Your task to perform on an android device: turn pop-ups on in chrome Image 0: 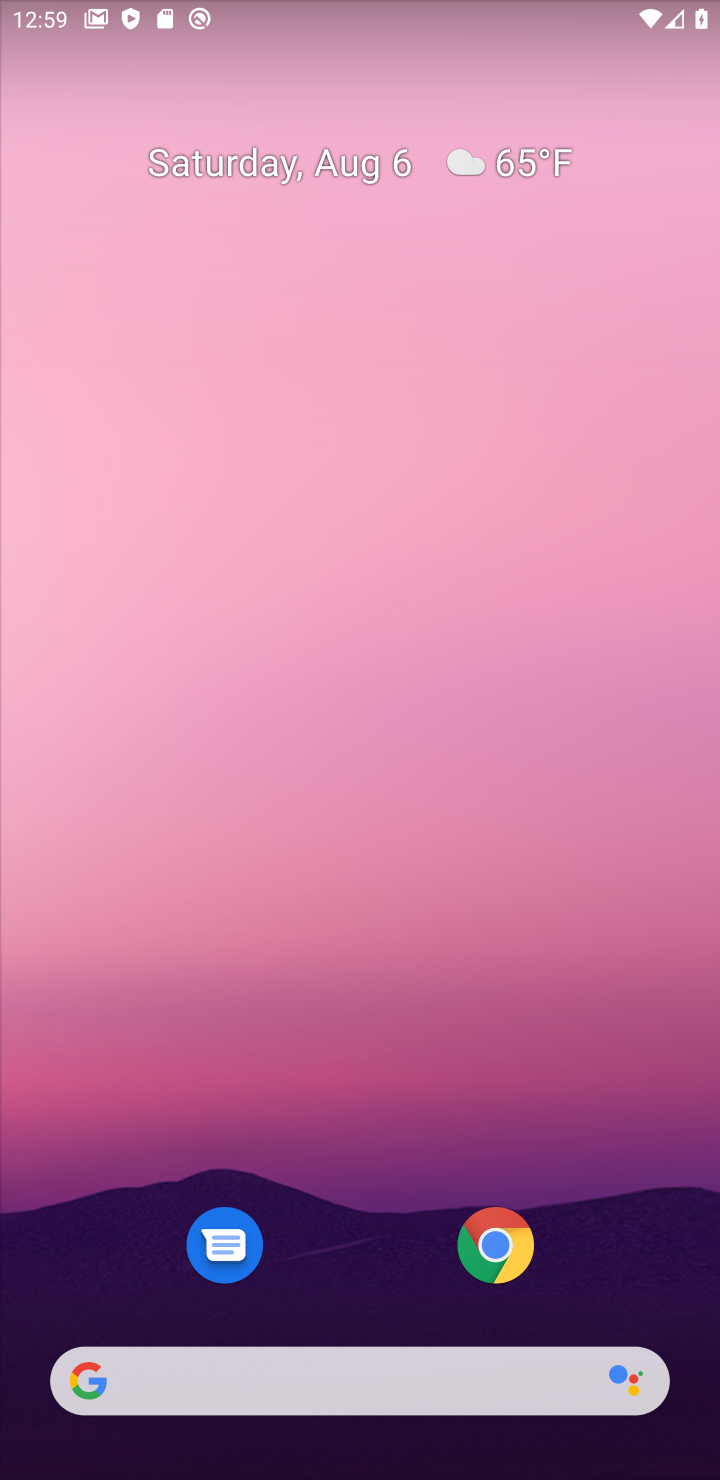
Step 0: click (517, 1245)
Your task to perform on an android device: turn pop-ups on in chrome Image 1: 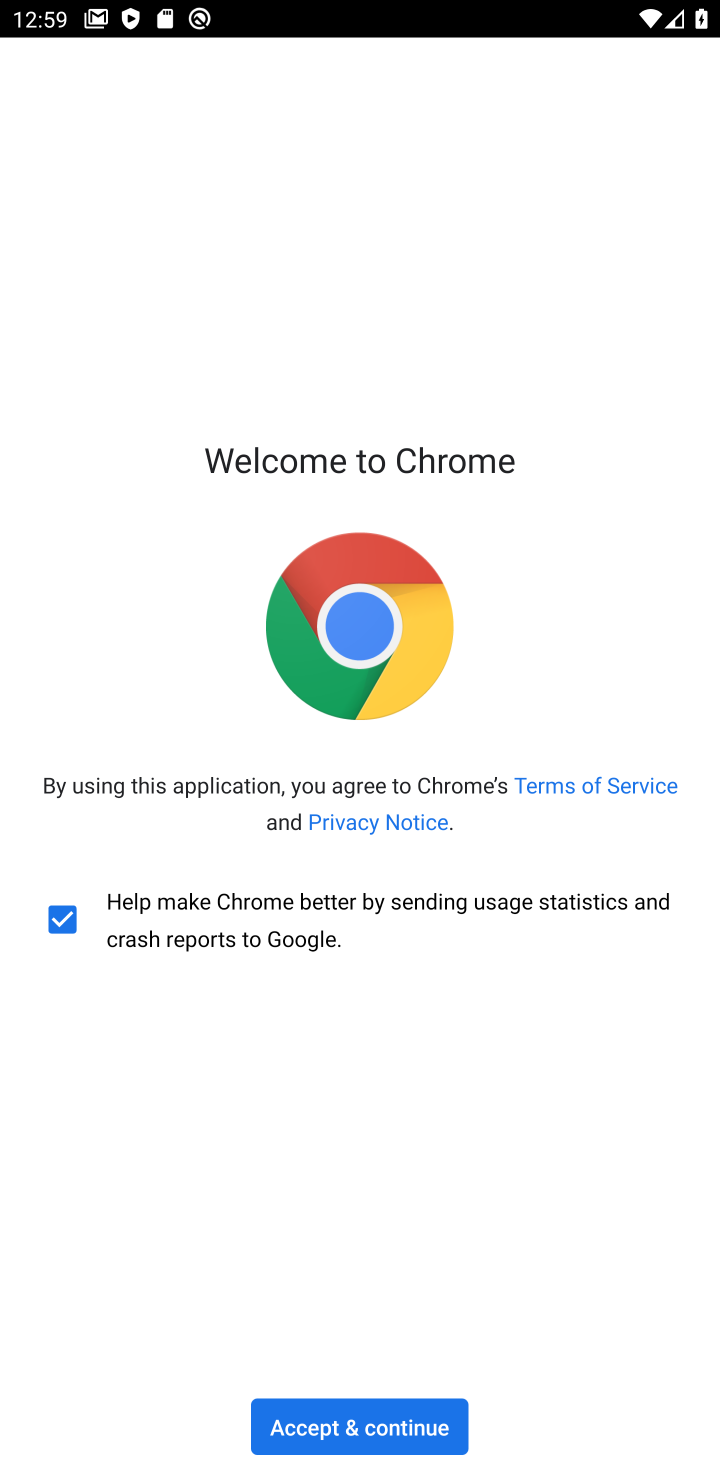
Step 1: click (400, 1424)
Your task to perform on an android device: turn pop-ups on in chrome Image 2: 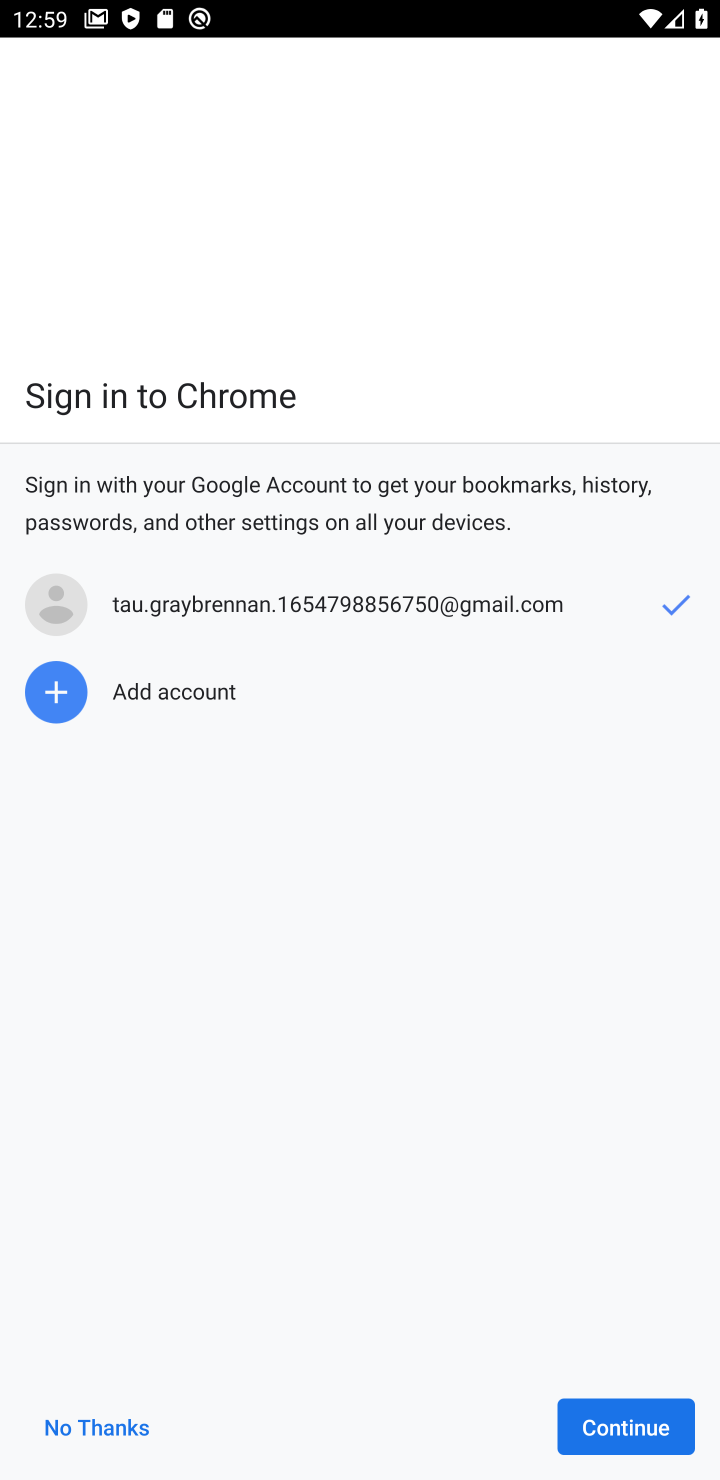
Step 2: click (633, 1415)
Your task to perform on an android device: turn pop-ups on in chrome Image 3: 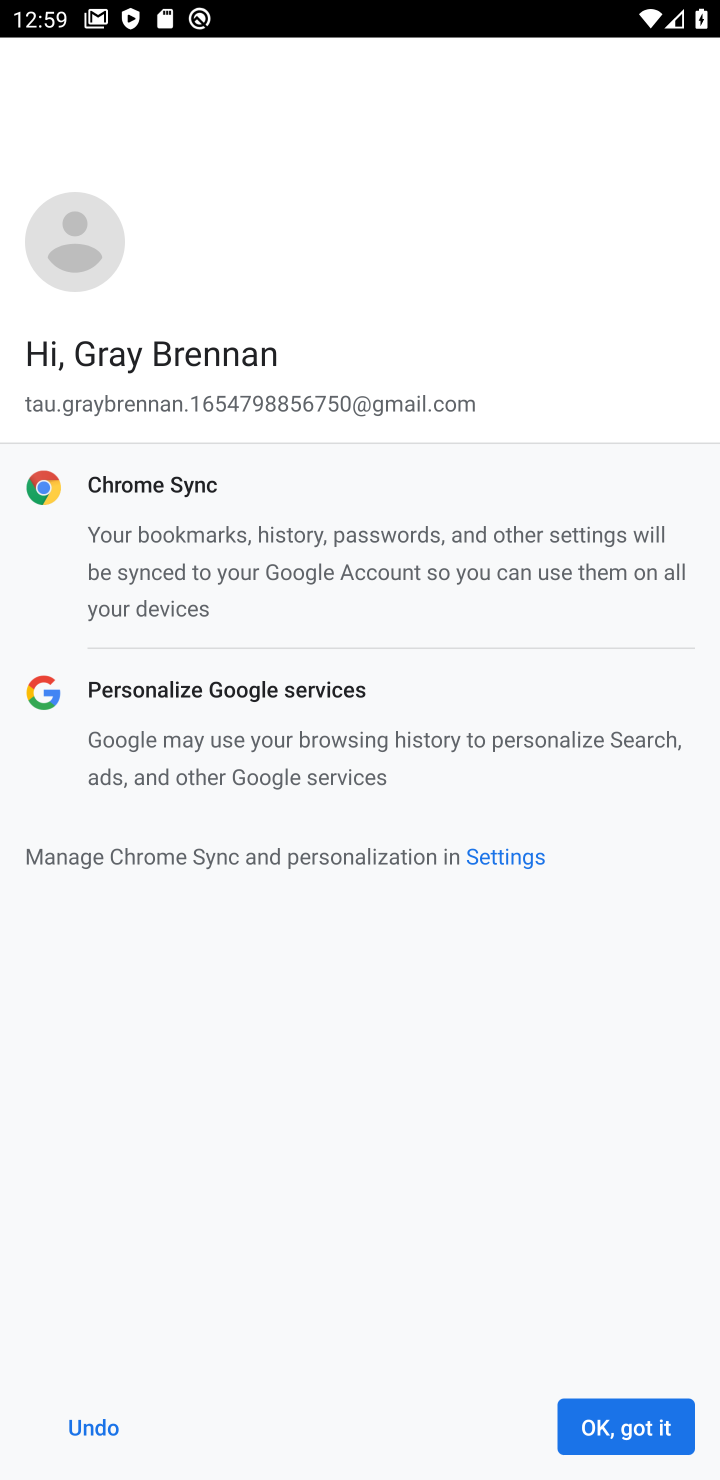
Step 3: click (633, 1422)
Your task to perform on an android device: turn pop-ups on in chrome Image 4: 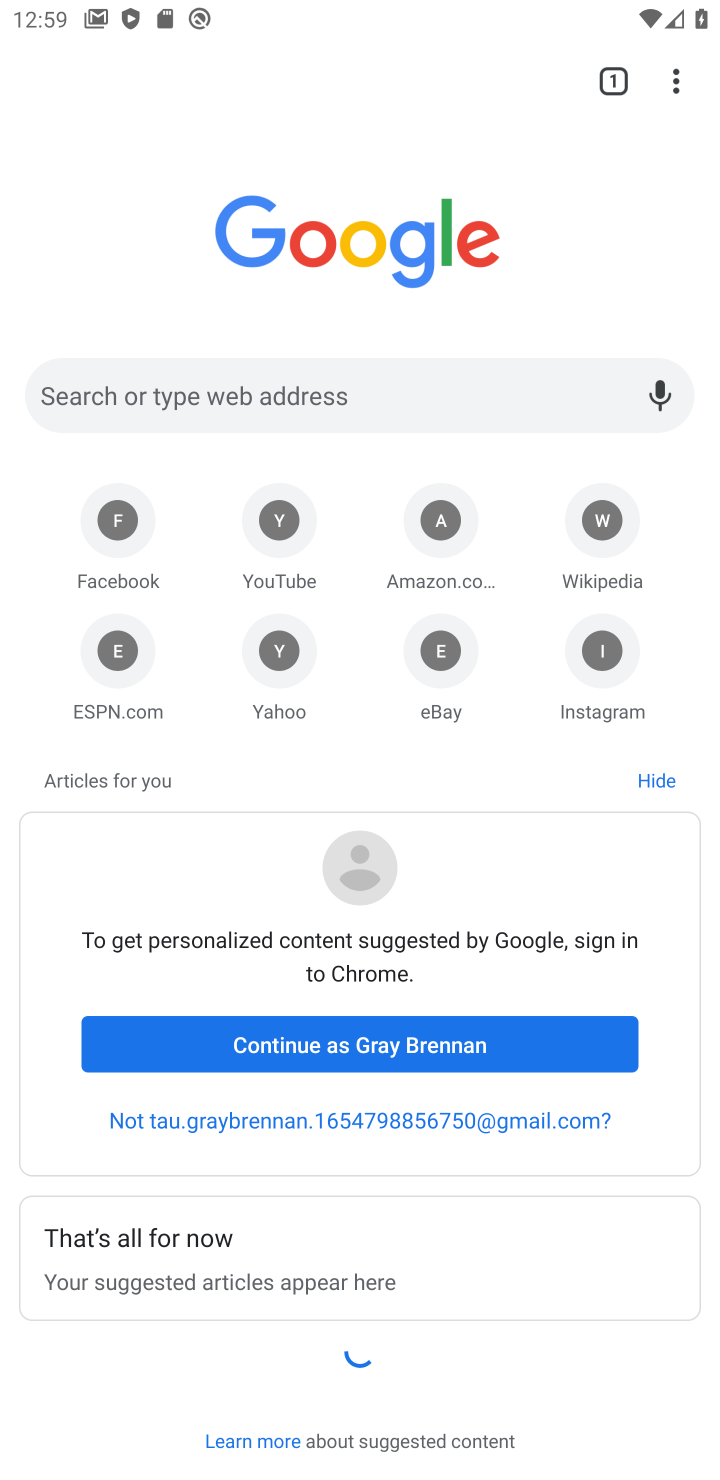
Step 4: task complete